Your task to perform on an android device: Open the calendar app, open the side menu, and click the "Day" option Image 0: 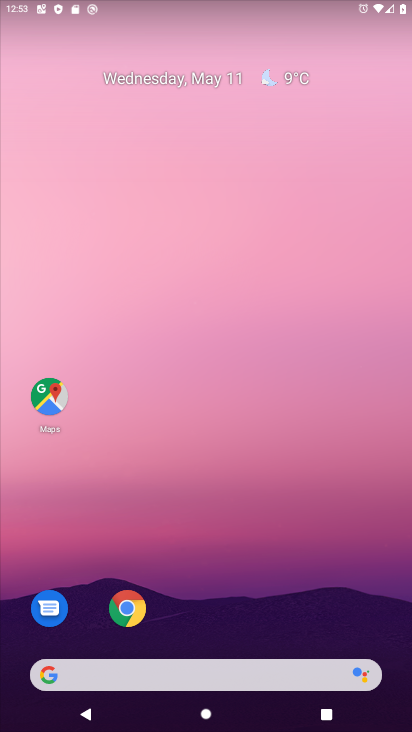
Step 0: drag from (225, 606) to (167, 1)
Your task to perform on an android device: Open the calendar app, open the side menu, and click the "Day" option Image 1: 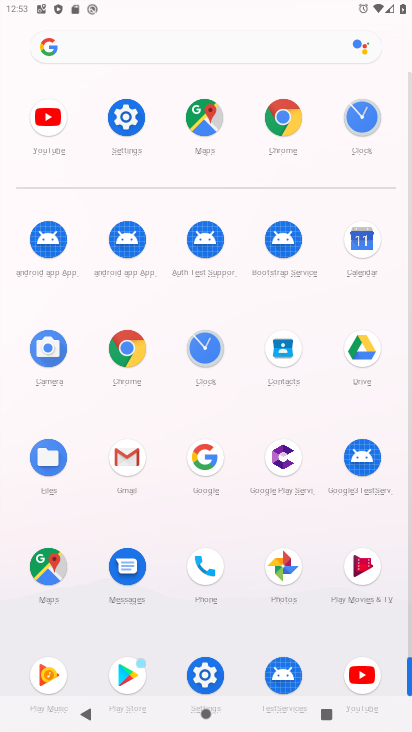
Step 1: click (363, 251)
Your task to perform on an android device: Open the calendar app, open the side menu, and click the "Day" option Image 2: 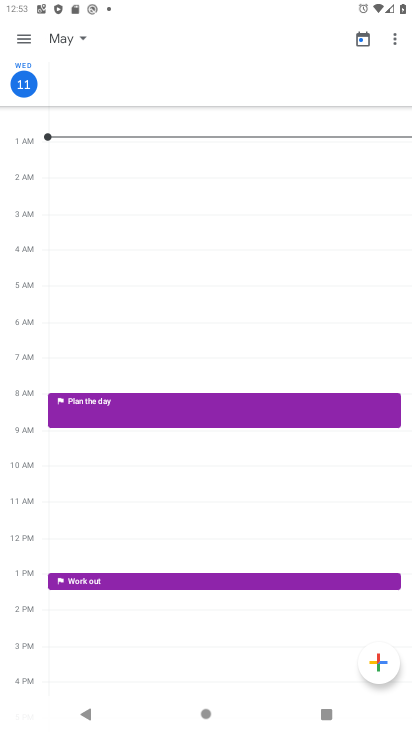
Step 2: click (22, 31)
Your task to perform on an android device: Open the calendar app, open the side menu, and click the "Day" option Image 3: 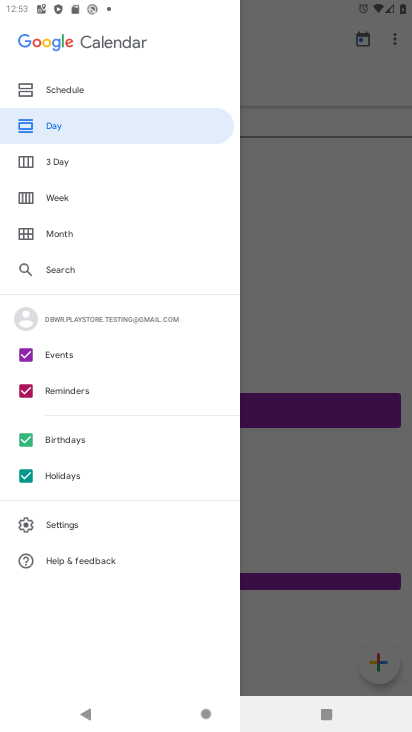
Step 3: click (72, 121)
Your task to perform on an android device: Open the calendar app, open the side menu, and click the "Day" option Image 4: 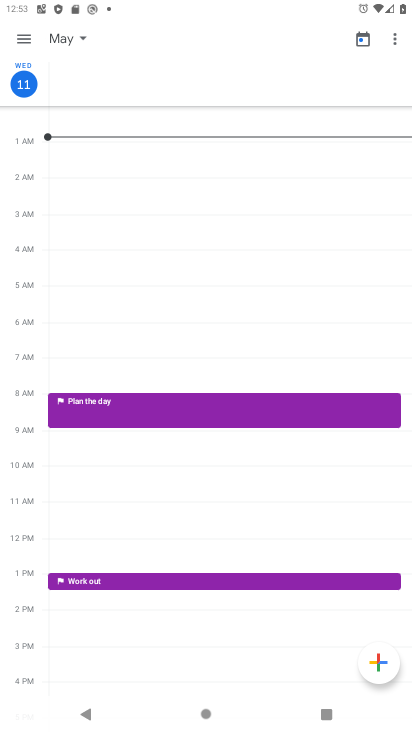
Step 4: task complete